Your task to perform on an android device: Open maps Image 0: 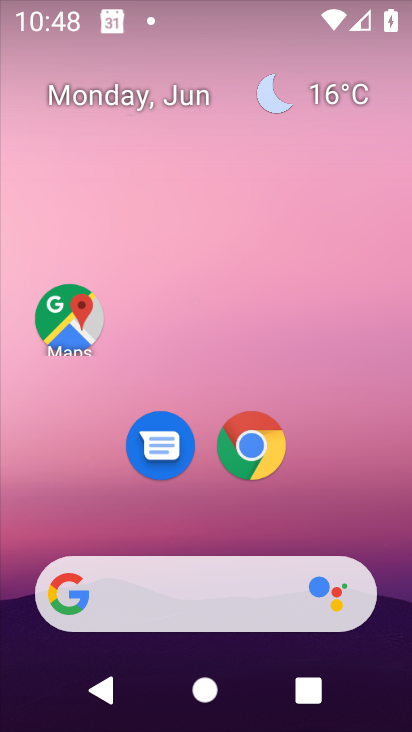
Step 0: press home button
Your task to perform on an android device: Open maps Image 1: 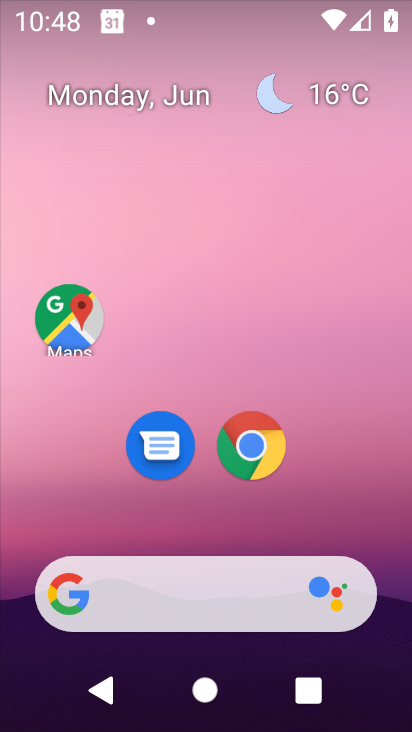
Step 1: click (55, 318)
Your task to perform on an android device: Open maps Image 2: 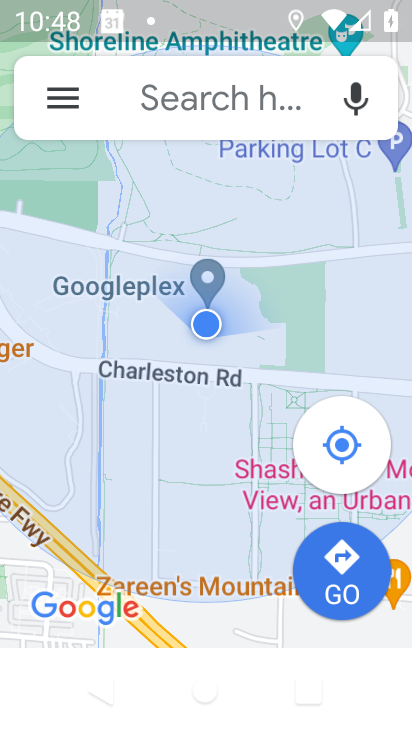
Step 2: task complete